Your task to perform on an android device: Go to Reddit.com Image 0: 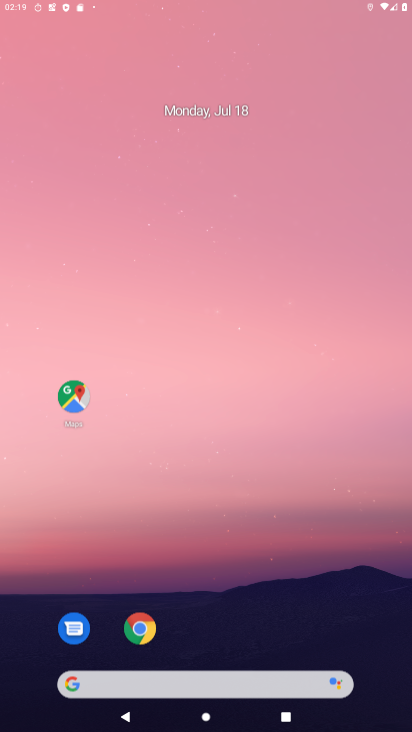
Step 0: press home button
Your task to perform on an android device: Go to Reddit.com Image 1: 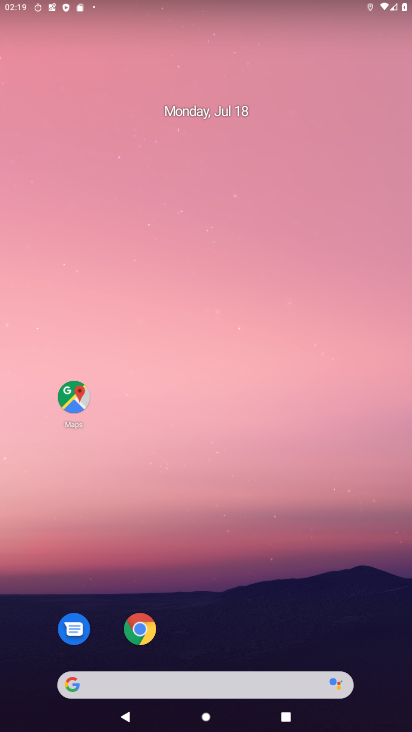
Step 1: drag from (209, 641) to (252, 71)
Your task to perform on an android device: Go to Reddit.com Image 2: 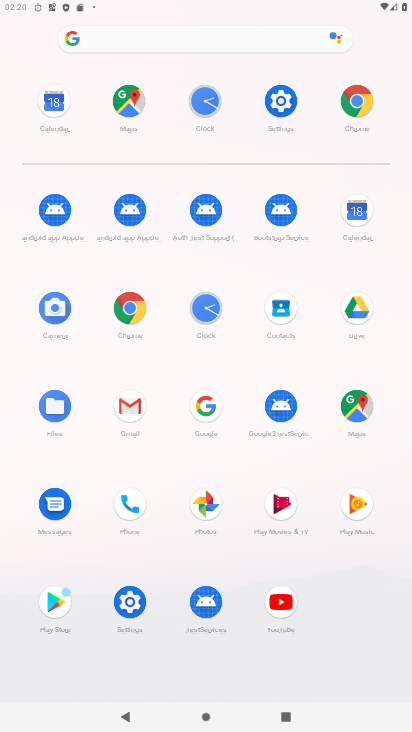
Step 2: click (121, 308)
Your task to perform on an android device: Go to Reddit.com Image 3: 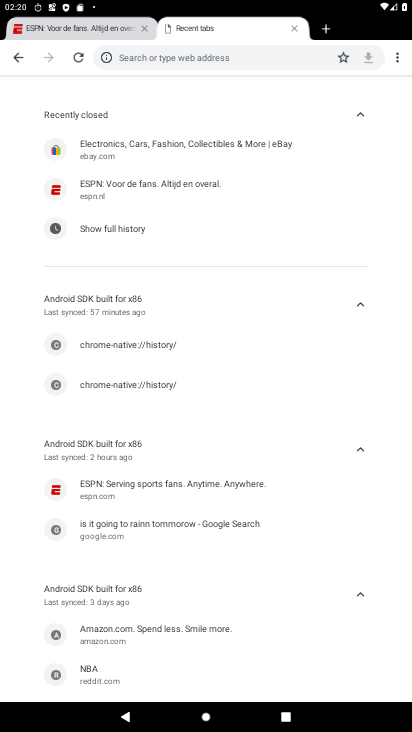
Step 3: click (323, 23)
Your task to perform on an android device: Go to Reddit.com Image 4: 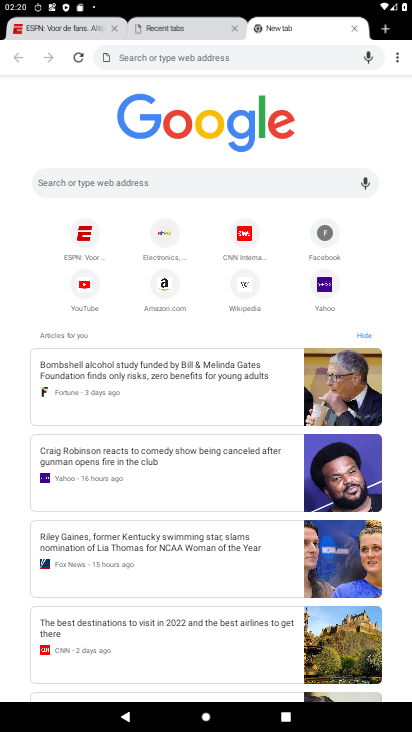
Step 4: click (129, 180)
Your task to perform on an android device: Go to Reddit.com Image 5: 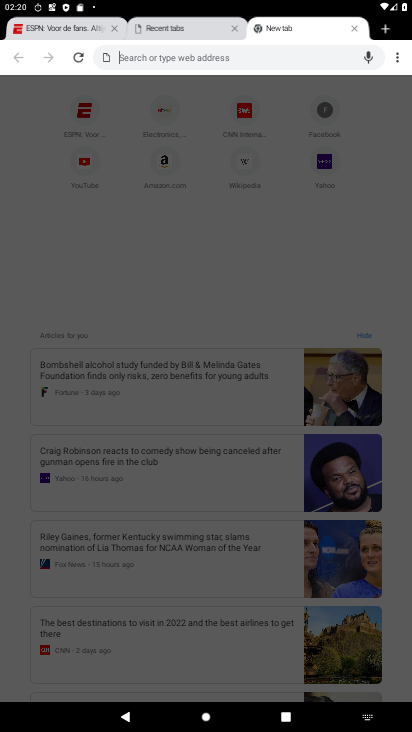
Step 5: type "reddit"
Your task to perform on an android device: Go to Reddit.com Image 6: 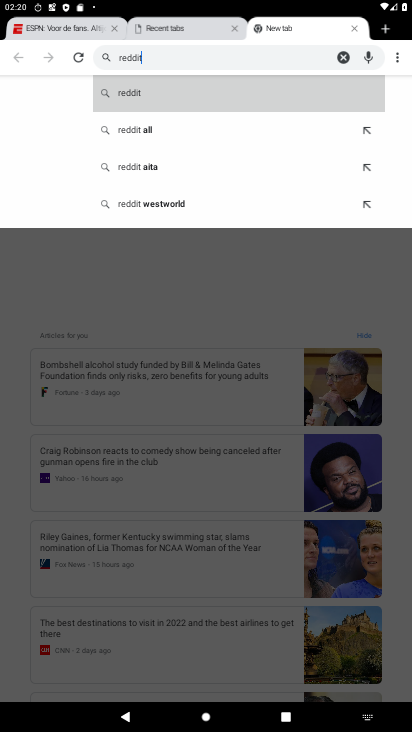
Step 6: click (151, 97)
Your task to perform on an android device: Go to Reddit.com Image 7: 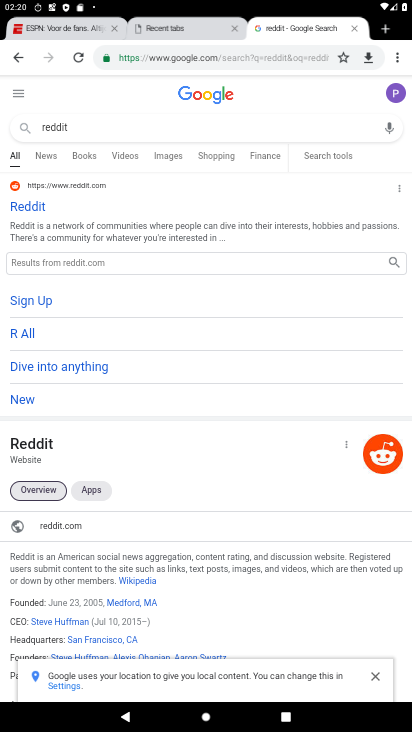
Step 7: click (28, 197)
Your task to perform on an android device: Go to Reddit.com Image 8: 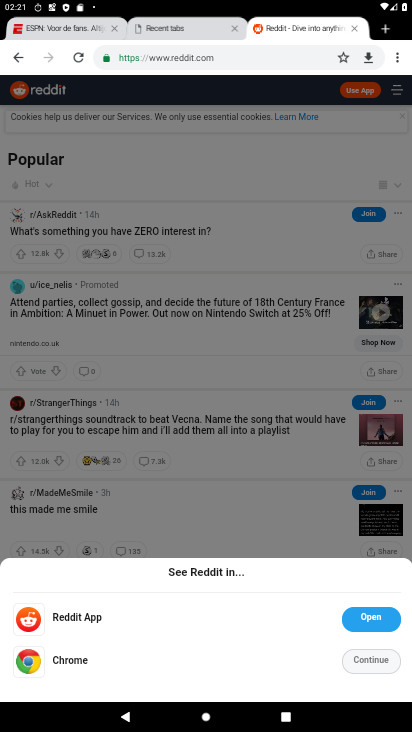
Step 8: click (376, 652)
Your task to perform on an android device: Go to Reddit.com Image 9: 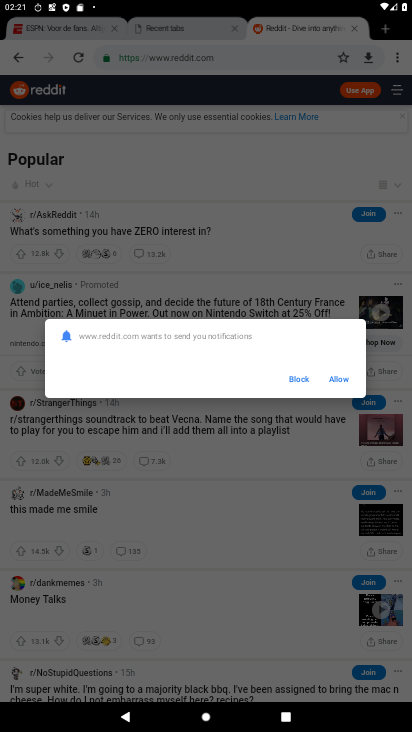
Step 9: click (339, 382)
Your task to perform on an android device: Go to Reddit.com Image 10: 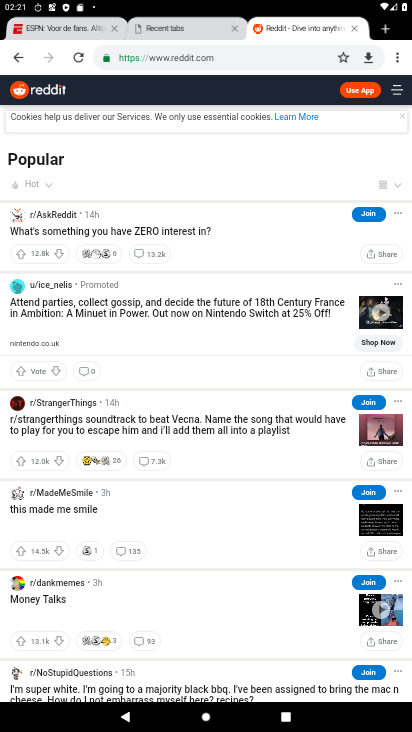
Step 10: task complete